Your task to perform on an android device: Open notification settings Image 0: 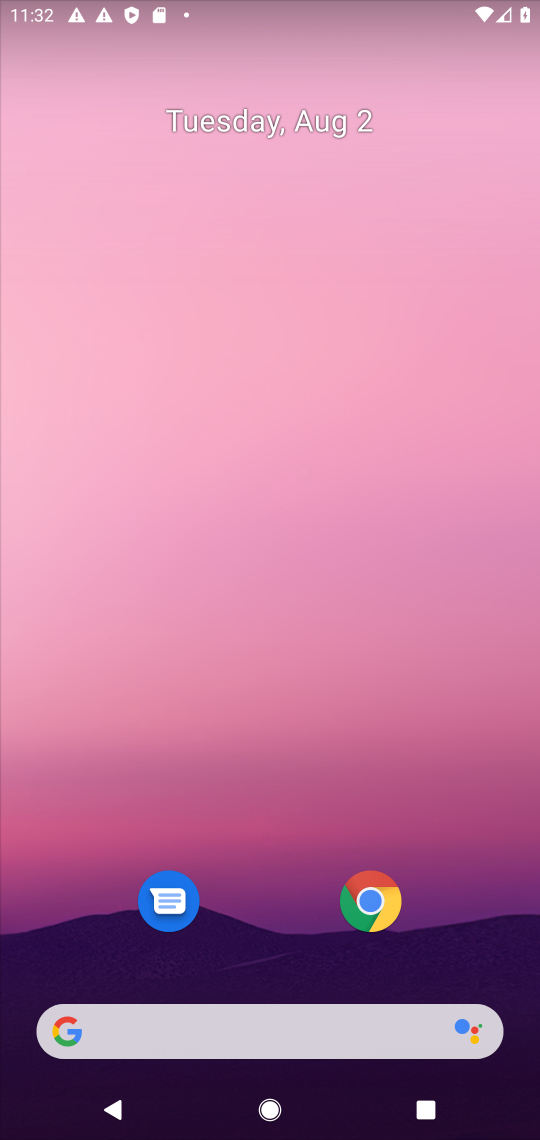
Step 0: drag from (523, 1097) to (364, 55)
Your task to perform on an android device: Open notification settings Image 1: 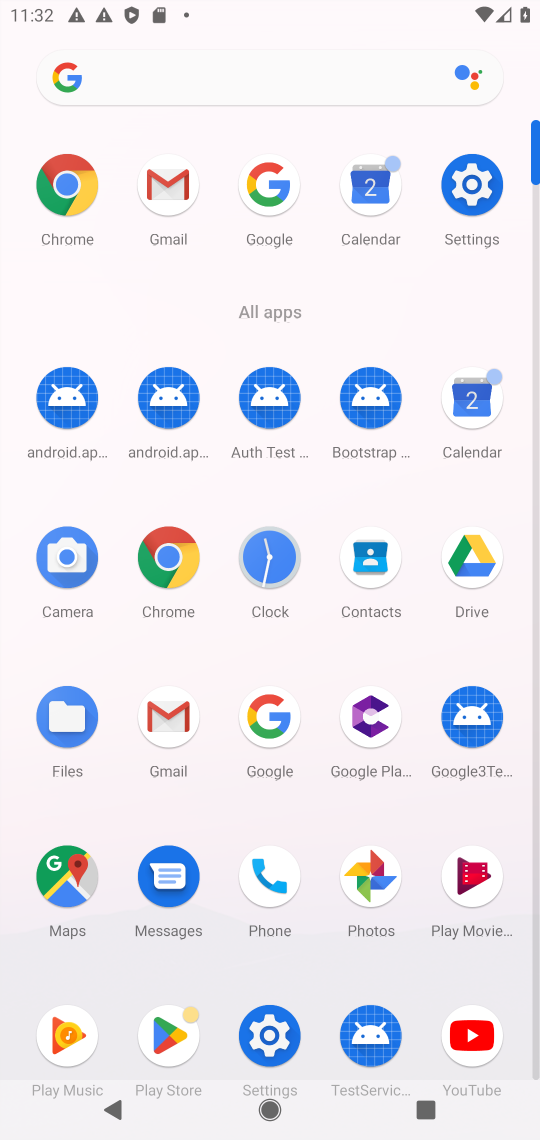
Step 1: click (454, 191)
Your task to perform on an android device: Open notification settings Image 2: 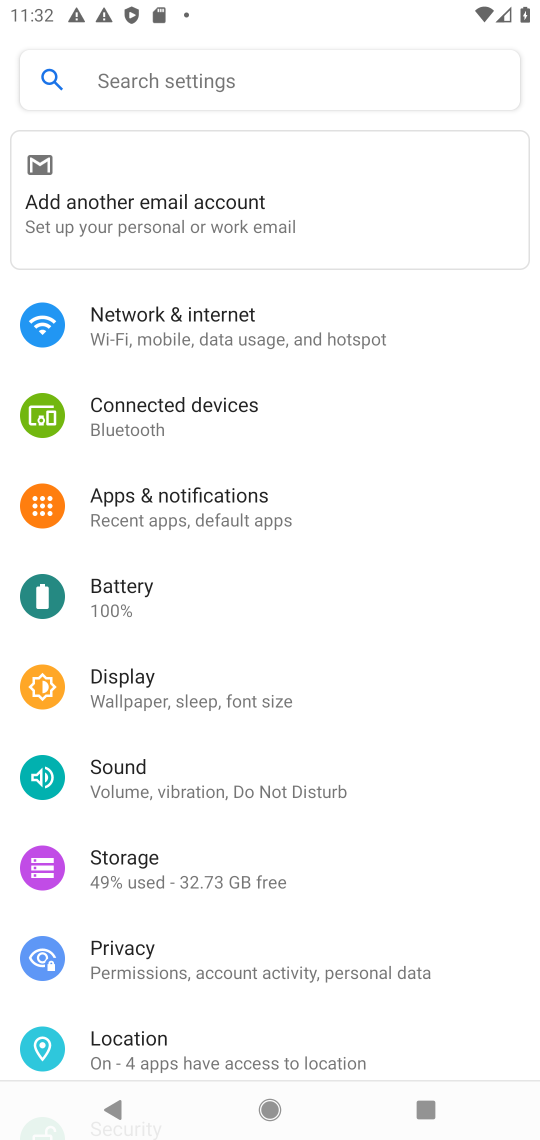
Step 2: click (172, 499)
Your task to perform on an android device: Open notification settings Image 3: 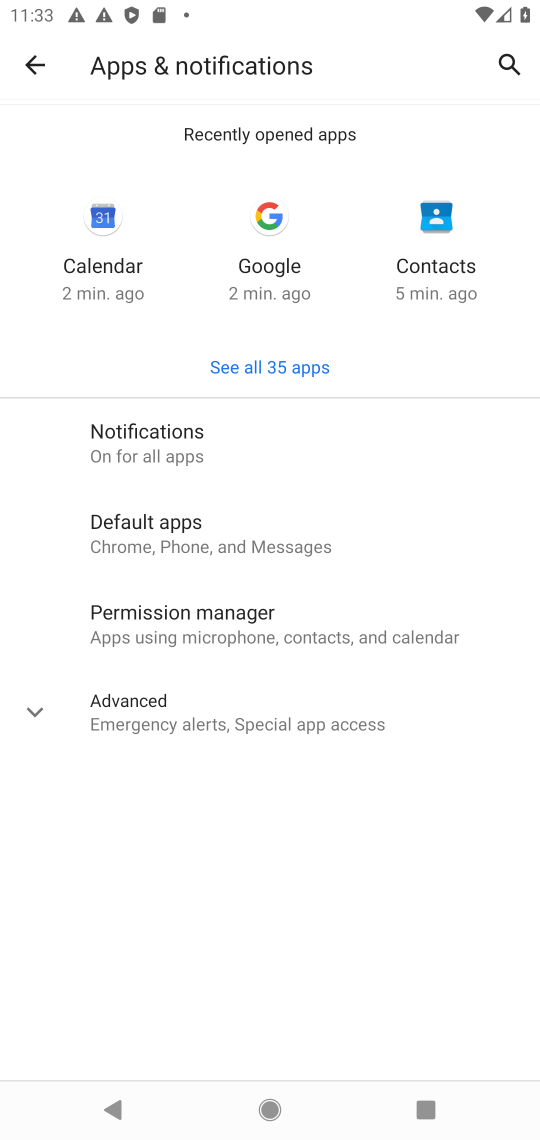
Step 3: click (127, 438)
Your task to perform on an android device: Open notification settings Image 4: 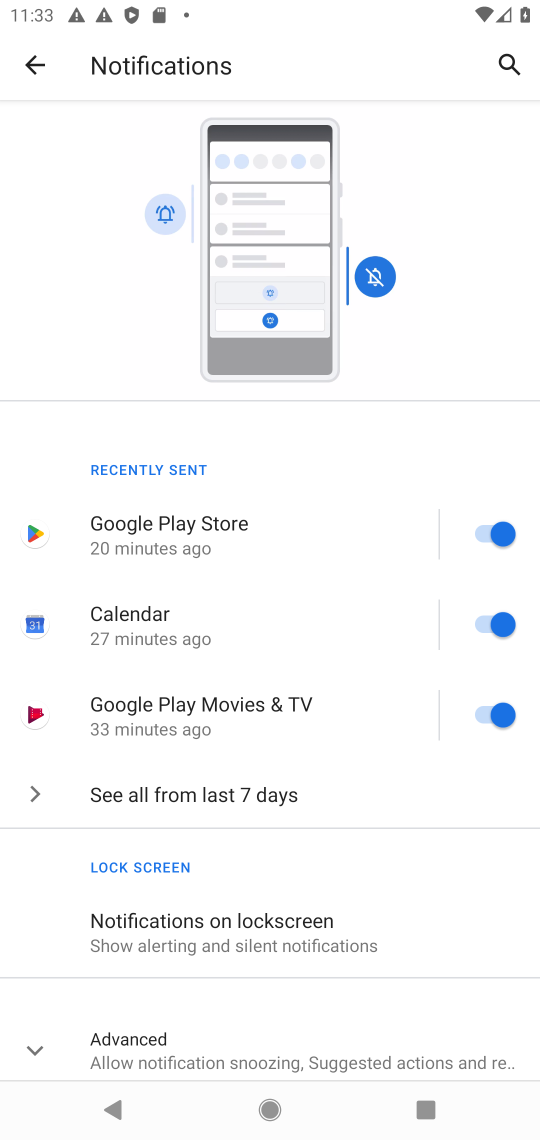
Step 4: click (43, 1050)
Your task to perform on an android device: Open notification settings Image 5: 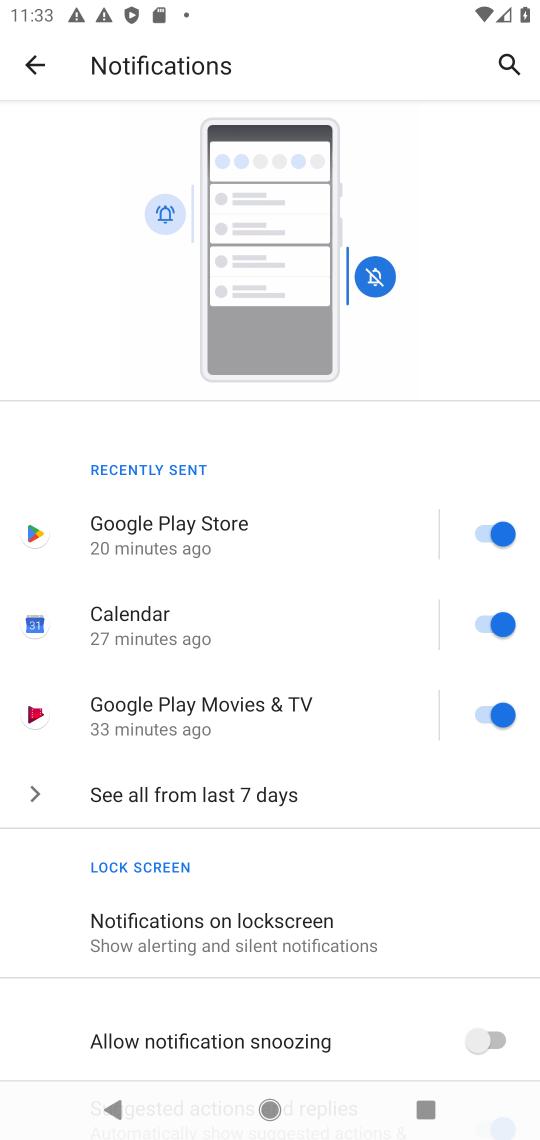
Step 5: task complete